Your task to perform on an android device: find which apps use the phone's location Image 0: 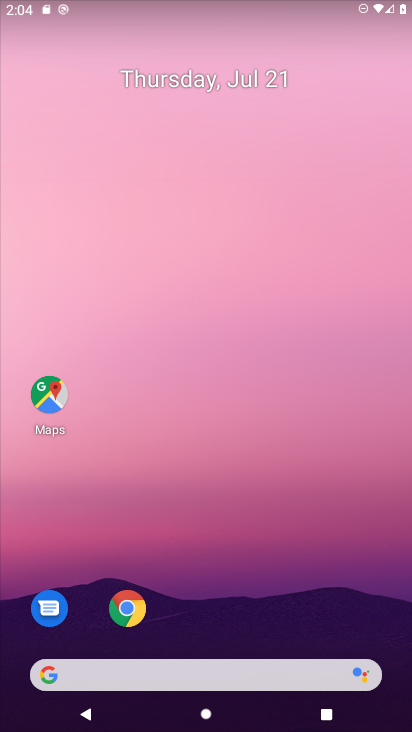
Step 0: drag from (207, 609) to (208, 10)
Your task to perform on an android device: find which apps use the phone's location Image 1: 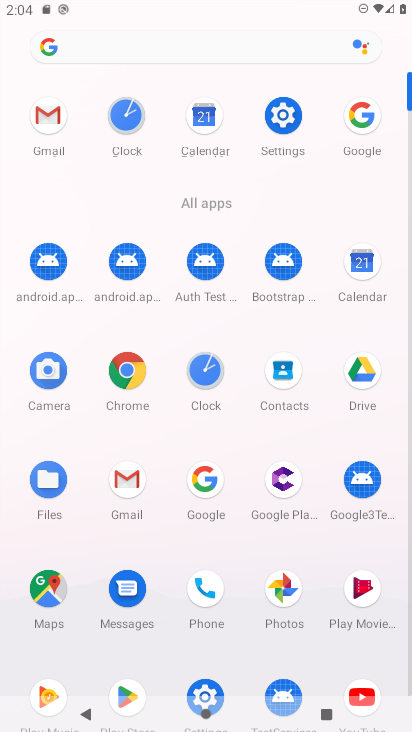
Step 1: click (277, 112)
Your task to perform on an android device: find which apps use the phone's location Image 2: 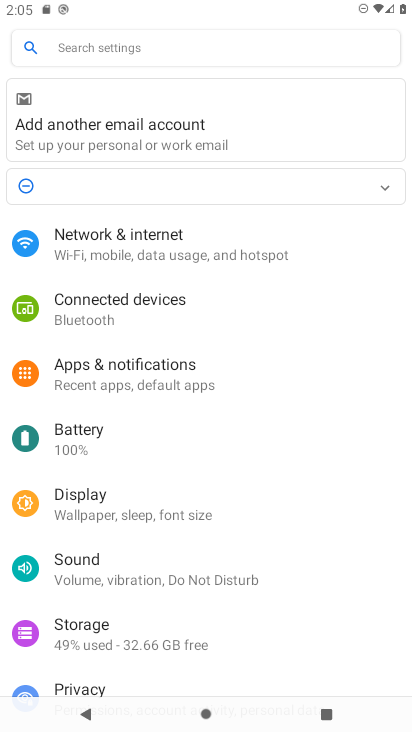
Step 2: drag from (119, 620) to (132, 266)
Your task to perform on an android device: find which apps use the phone's location Image 3: 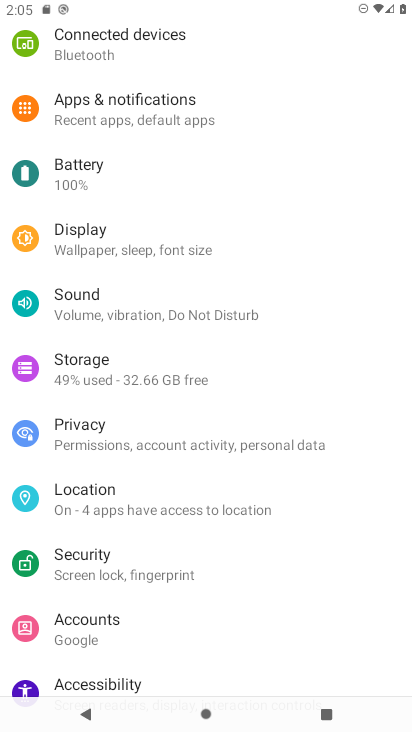
Step 3: click (102, 499)
Your task to perform on an android device: find which apps use the phone's location Image 4: 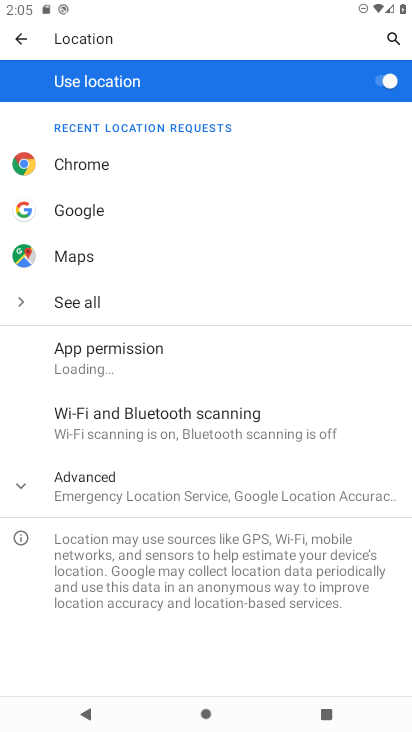
Step 4: click (129, 351)
Your task to perform on an android device: find which apps use the phone's location Image 5: 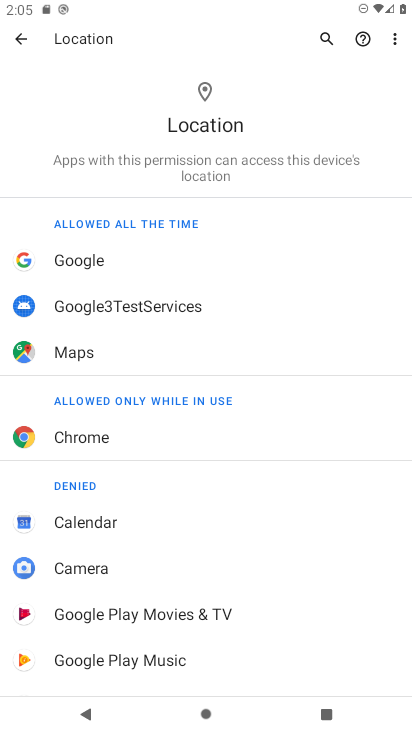
Step 5: task complete